Your task to perform on an android device: turn on location history Image 0: 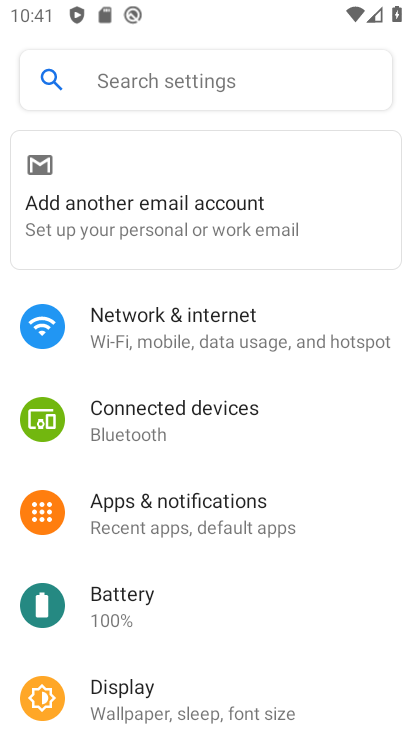
Step 0: press back button
Your task to perform on an android device: turn on location history Image 1: 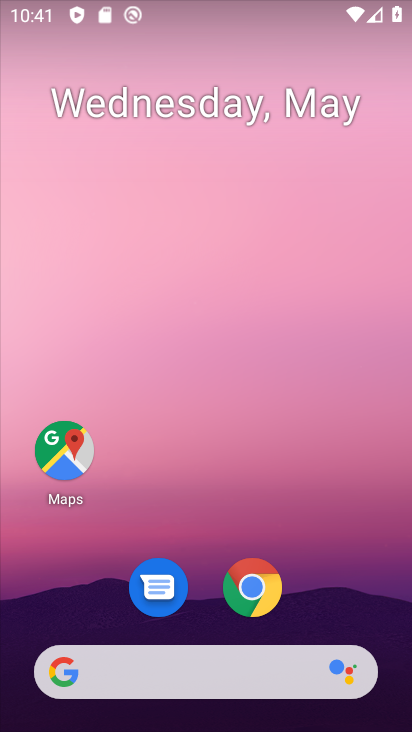
Step 1: drag from (187, 622) to (308, 68)
Your task to perform on an android device: turn on location history Image 2: 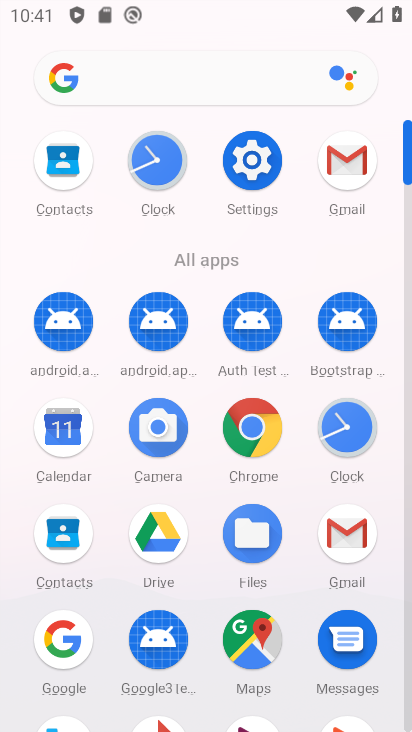
Step 2: click (256, 178)
Your task to perform on an android device: turn on location history Image 3: 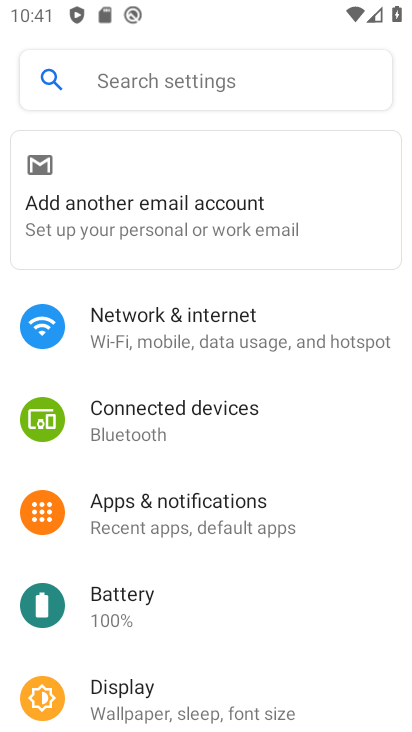
Step 3: drag from (184, 673) to (276, 74)
Your task to perform on an android device: turn on location history Image 4: 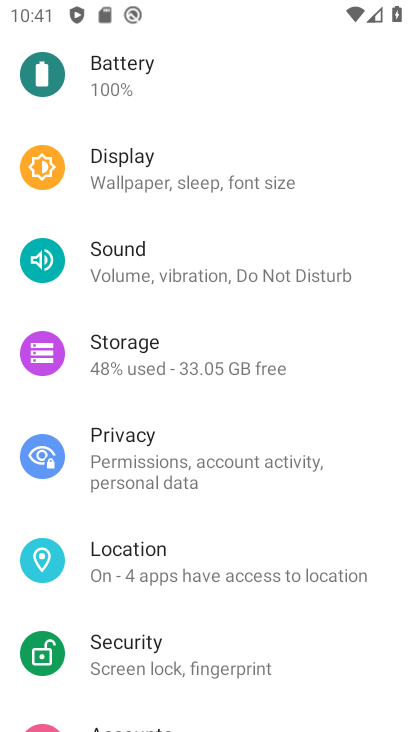
Step 4: click (146, 562)
Your task to perform on an android device: turn on location history Image 5: 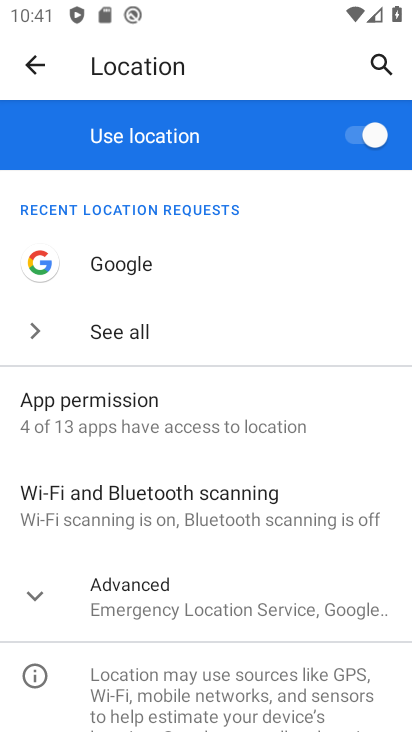
Step 5: click (176, 602)
Your task to perform on an android device: turn on location history Image 6: 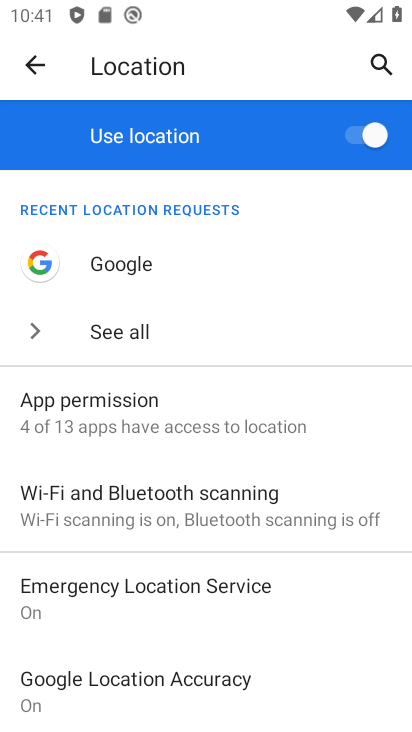
Step 6: drag from (195, 623) to (279, 161)
Your task to perform on an android device: turn on location history Image 7: 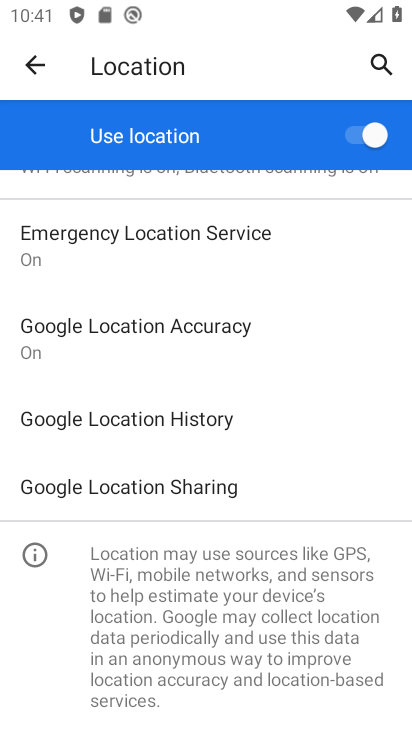
Step 7: click (153, 421)
Your task to perform on an android device: turn on location history Image 8: 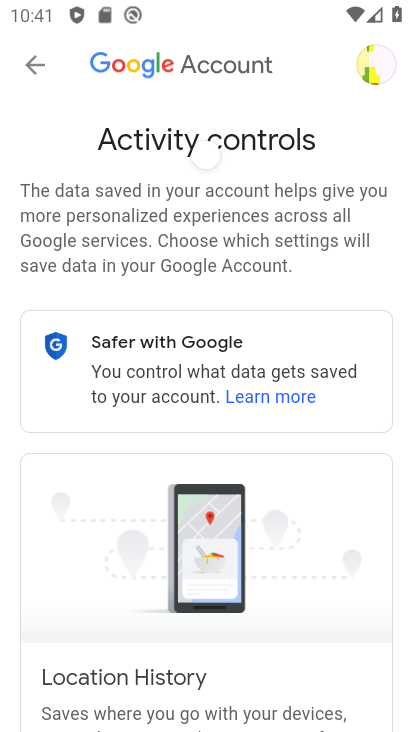
Step 8: task complete